Your task to perform on an android device: Open network settings Image 0: 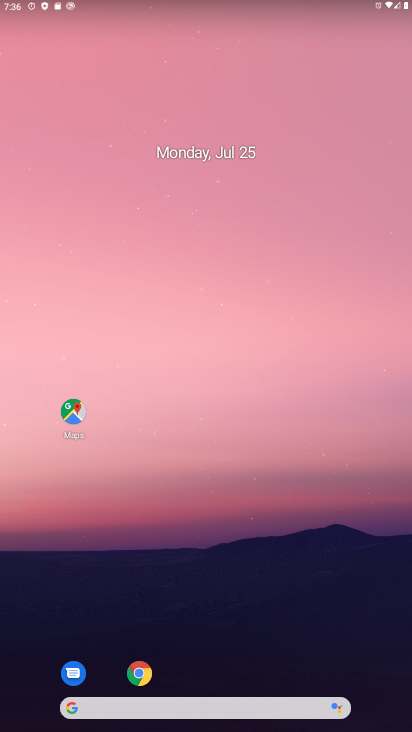
Step 0: drag from (337, 620) to (215, 36)
Your task to perform on an android device: Open network settings Image 1: 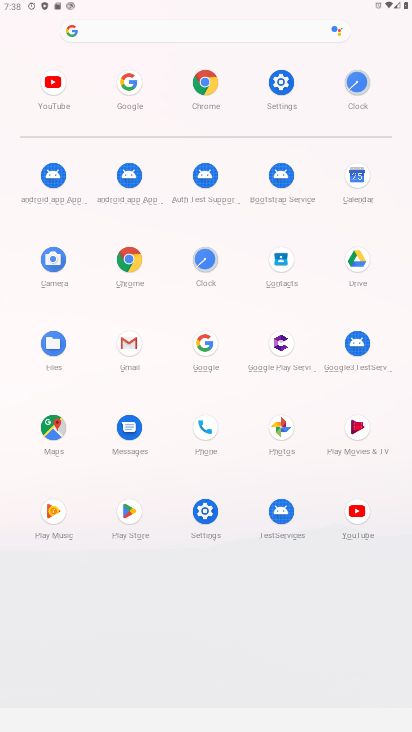
Step 1: click (191, 512)
Your task to perform on an android device: Open network settings Image 2: 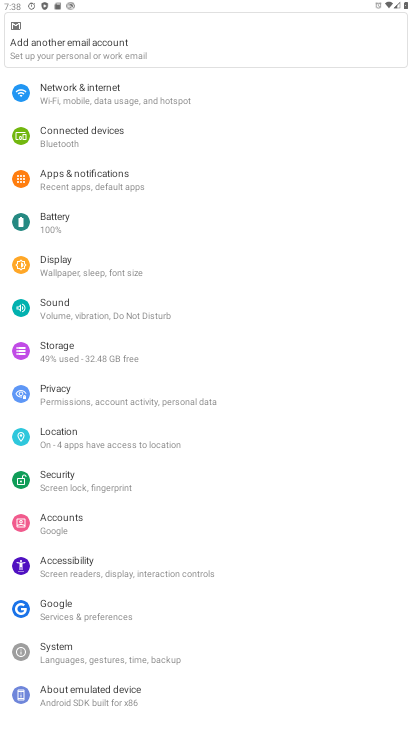
Step 2: click (77, 105)
Your task to perform on an android device: Open network settings Image 3: 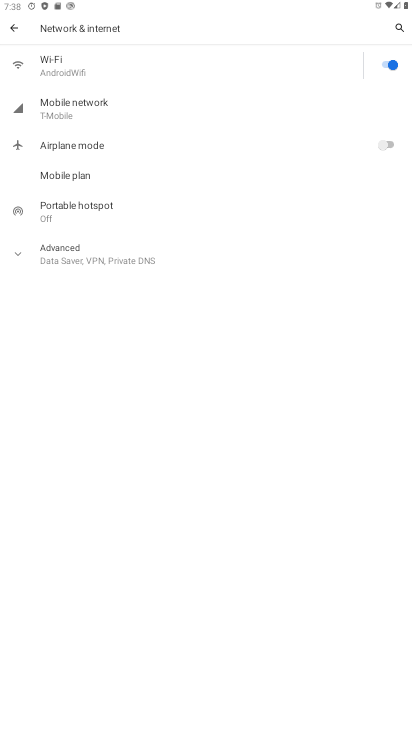
Step 3: task complete